Your task to perform on an android device: turn on bluetooth scan Image 0: 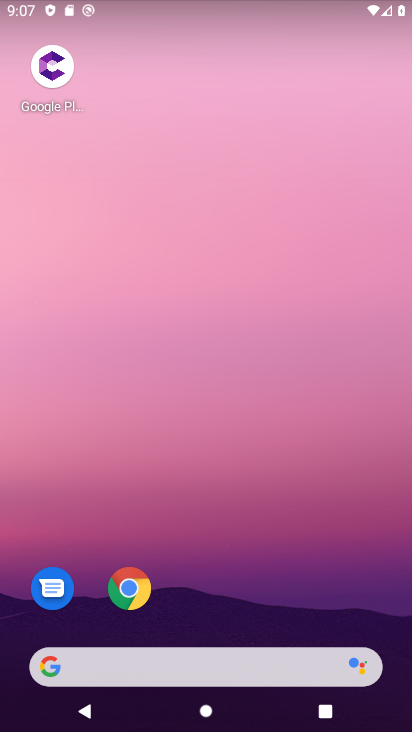
Step 0: drag from (279, 577) to (288, 59)
Your task to perform on an android device: turn on bluetooth scan Image 1: 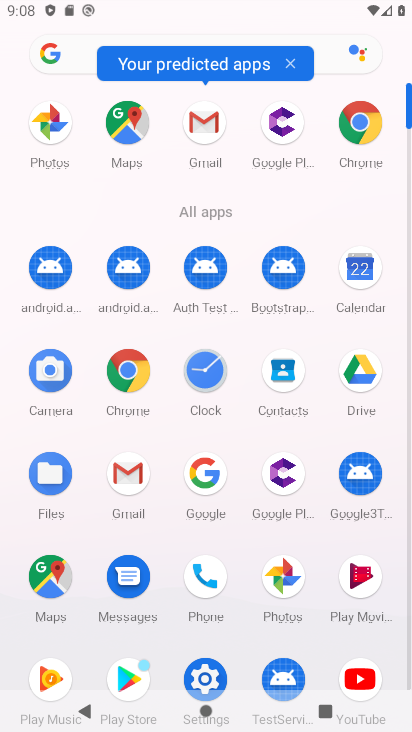
Step 1: click (205, 673)
Your task to perform on an android device: turn on bluetooth scan Image 2: 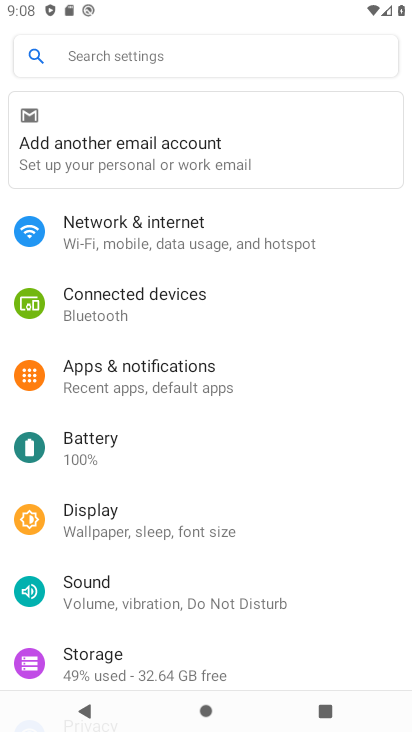
Step 2: drag from (281, 581) to (264, 173)
Your task to perform on an android device: turn on bluetooth scan Image 3: 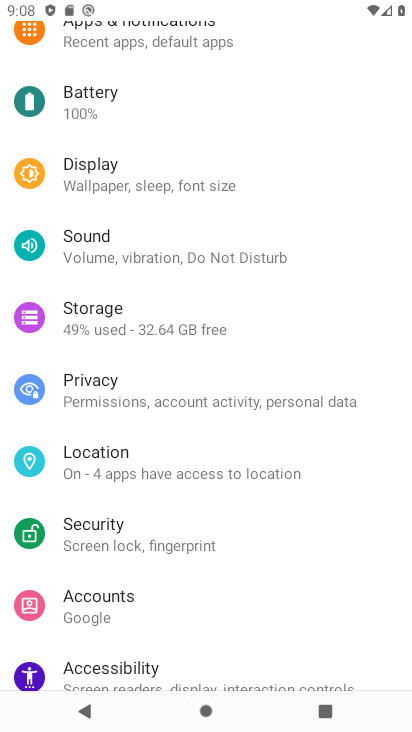
Step 3: click (84, 469)
Your task to perform on an android device: turn on bluetooth scan Image 4: 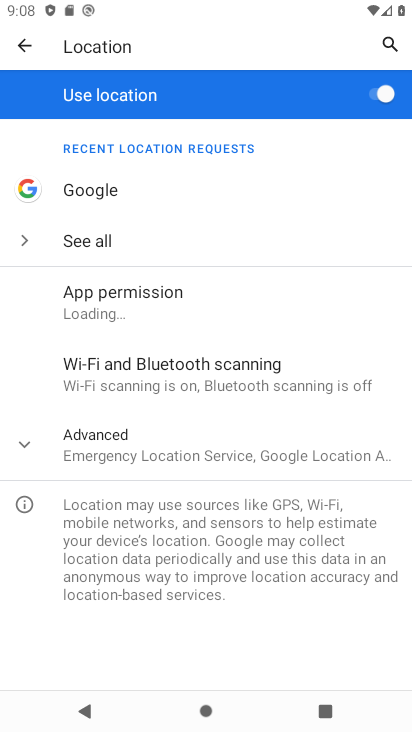
Step 4: click (157, 460)
Your task to perform on an android device: turn on bluetooth scan Image 5: 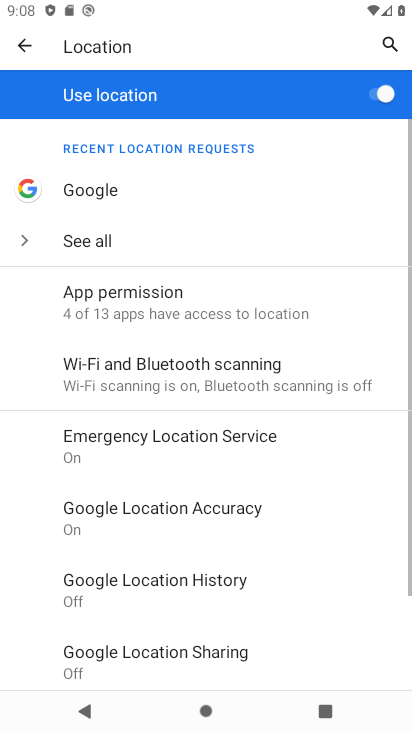
Step 5: click (250, 368)
Your task to perform on an android device: turn on bluetooth scan Image 6: 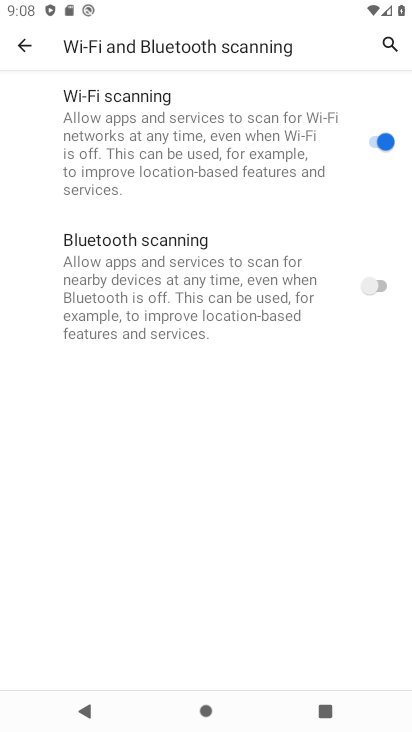
Step 6: click (373, 283)
Your task to perform on an android device: turn on bluetooth scan Image 7: 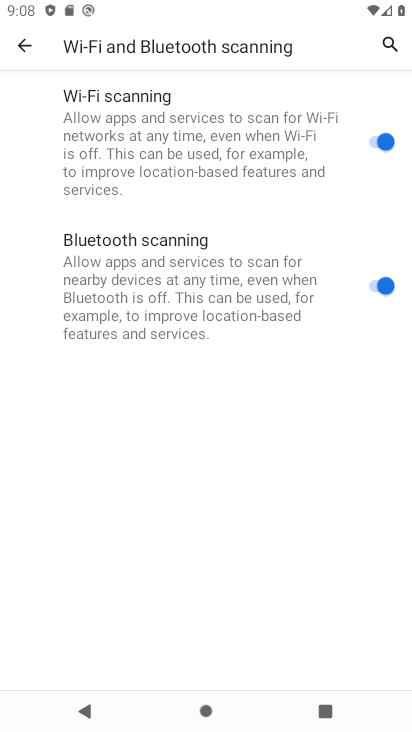
Step 7: task complete